Your task to perform on an android device: allow notifications from all sites in the chrome app Image 0: 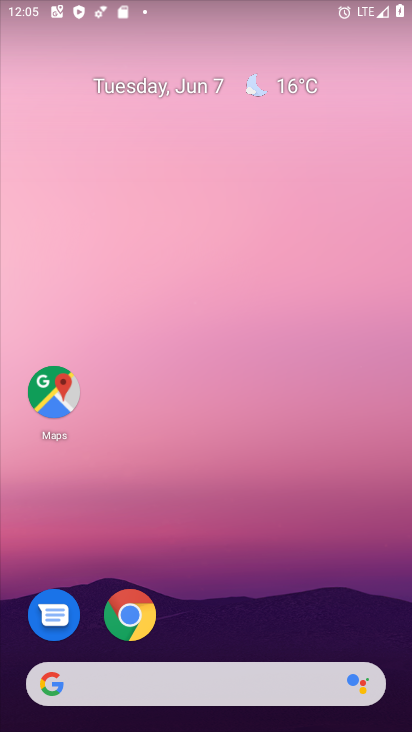
Step 0: press home button
Your task to perform on an android device: allow notifications from all sites in the chrome app Image 1: 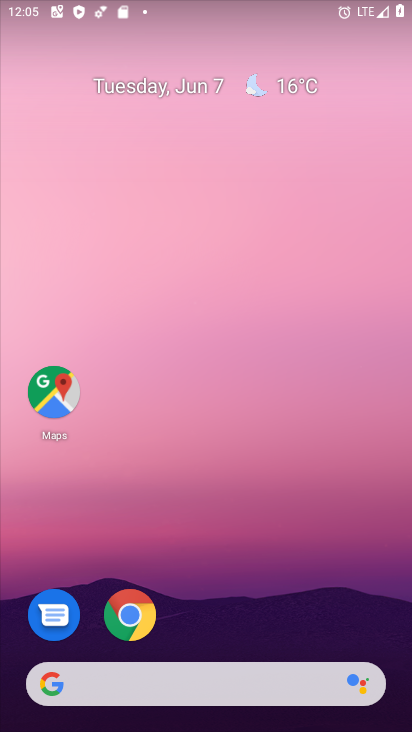
Step 1: click (125, 609)
Your task to perform on an android device: allow notifications from all sites in the chrome app Image 2: 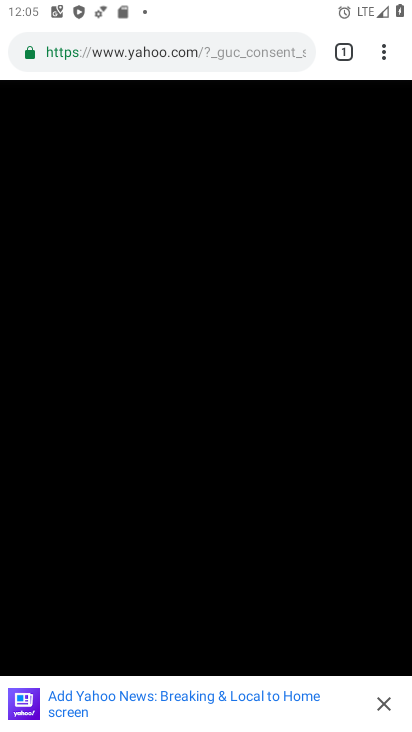
Step 2: click (381, 46)
Your task to perform on an android device: allow notifications from all sites in the chrome app Image 3: 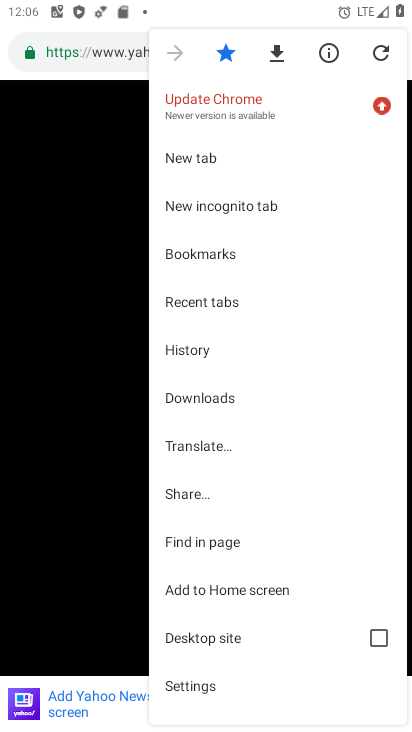
Step 3: click (225, 684)
Your task to perform on an android device: allow notifications from all sites in the chrome app Image 4: 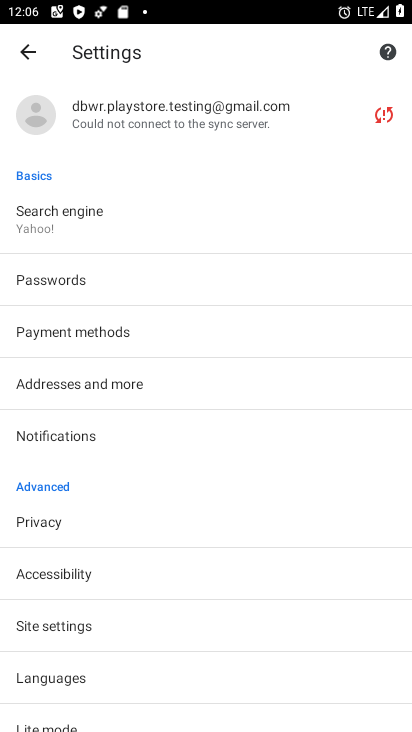
Step 4: click (87, 625)
Your task to perform on an android device: allow notifications from all sites in the chrome app Image 5: 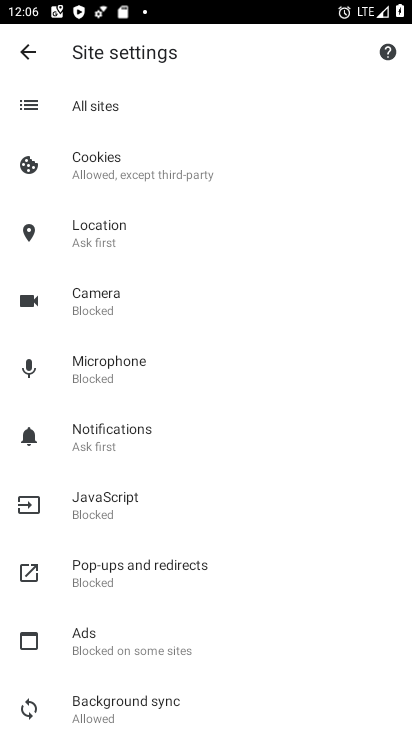
Step 5: click (127, 101)
Your task to perform on an android device: allow notifications from all sites in the chrome app Image 6: 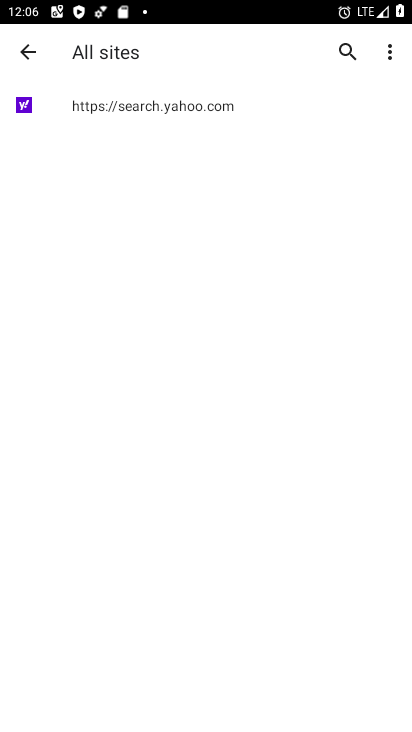
Step 6: click (141, 107)
Your task to perform on an android device: allow notifications from all sites in the chrome app Image 7: 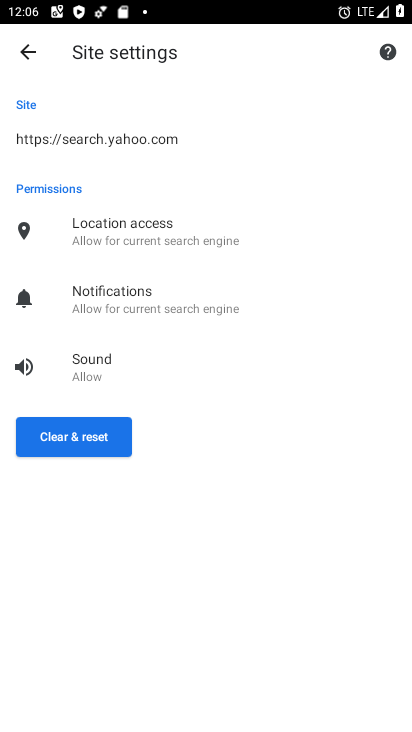
Step 7: task complete